Your task to perform on an android device: Go to wifi settings Image 0: 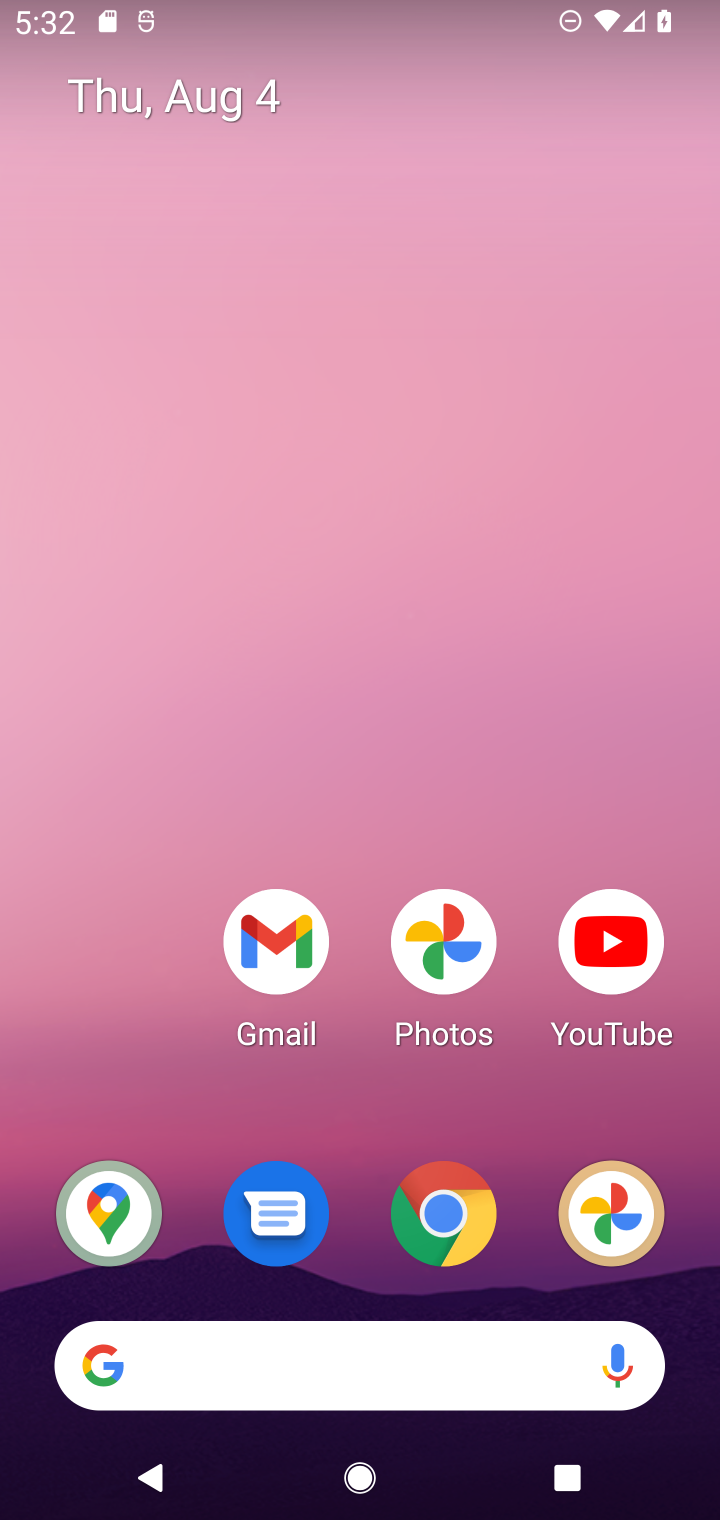
Step 0: drag from (146, 959) to (143, 241)
Your task to perform on an android device: Go to wifi settings Image 1: 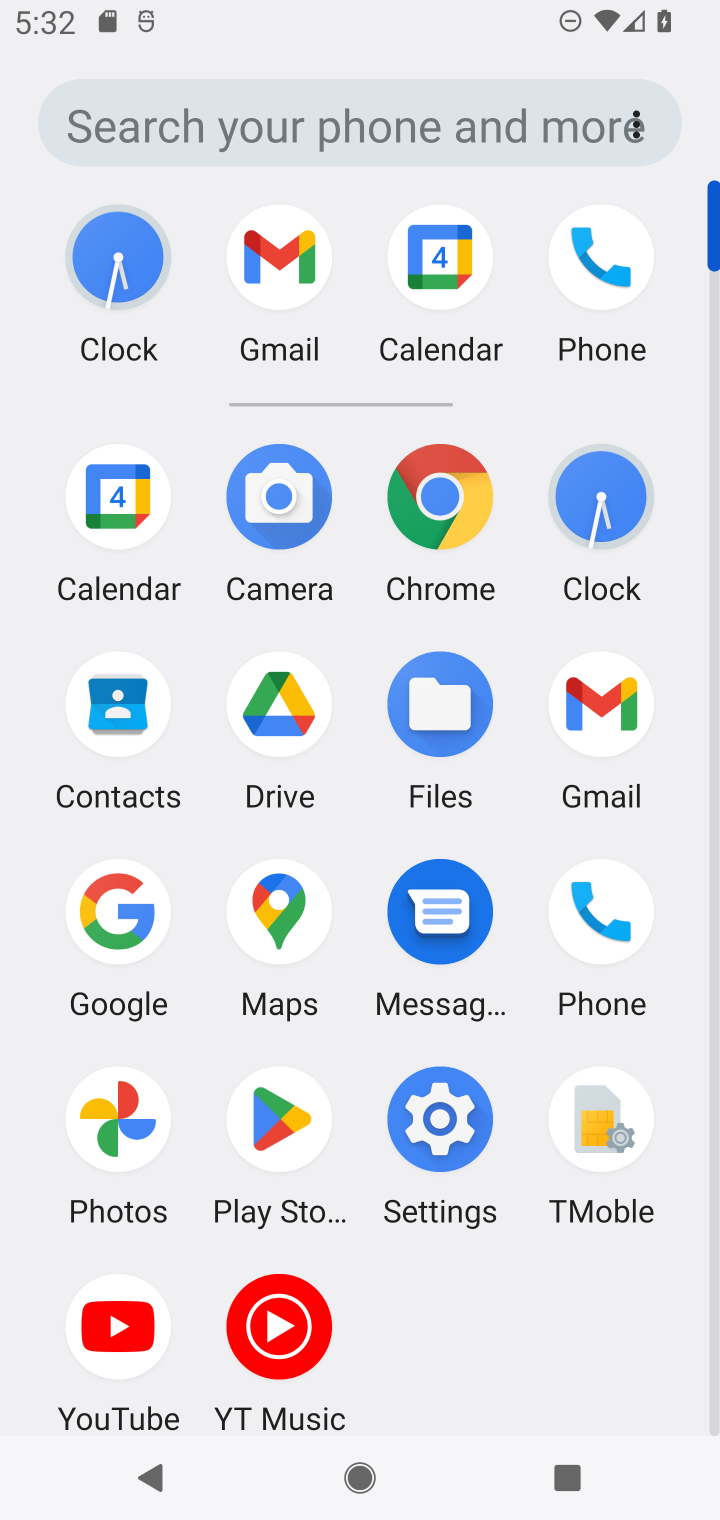
Step 1: click (433, 1132)
Your task to perform on an android device: Go to wifi settings Image 2: 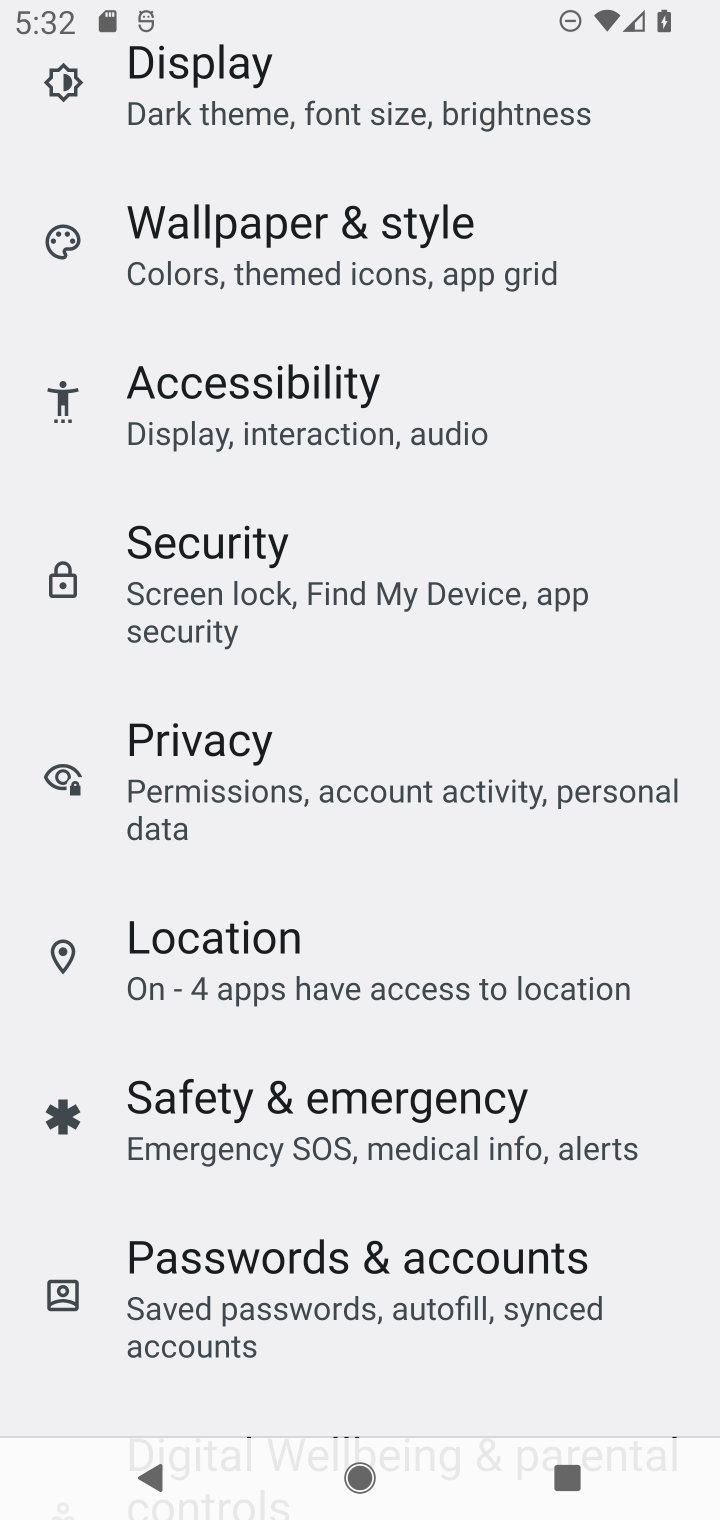
Step 2: drag from (615, 600) to (615, 900)
Your task to perform on an android device: Go to wifi settings Image 3: 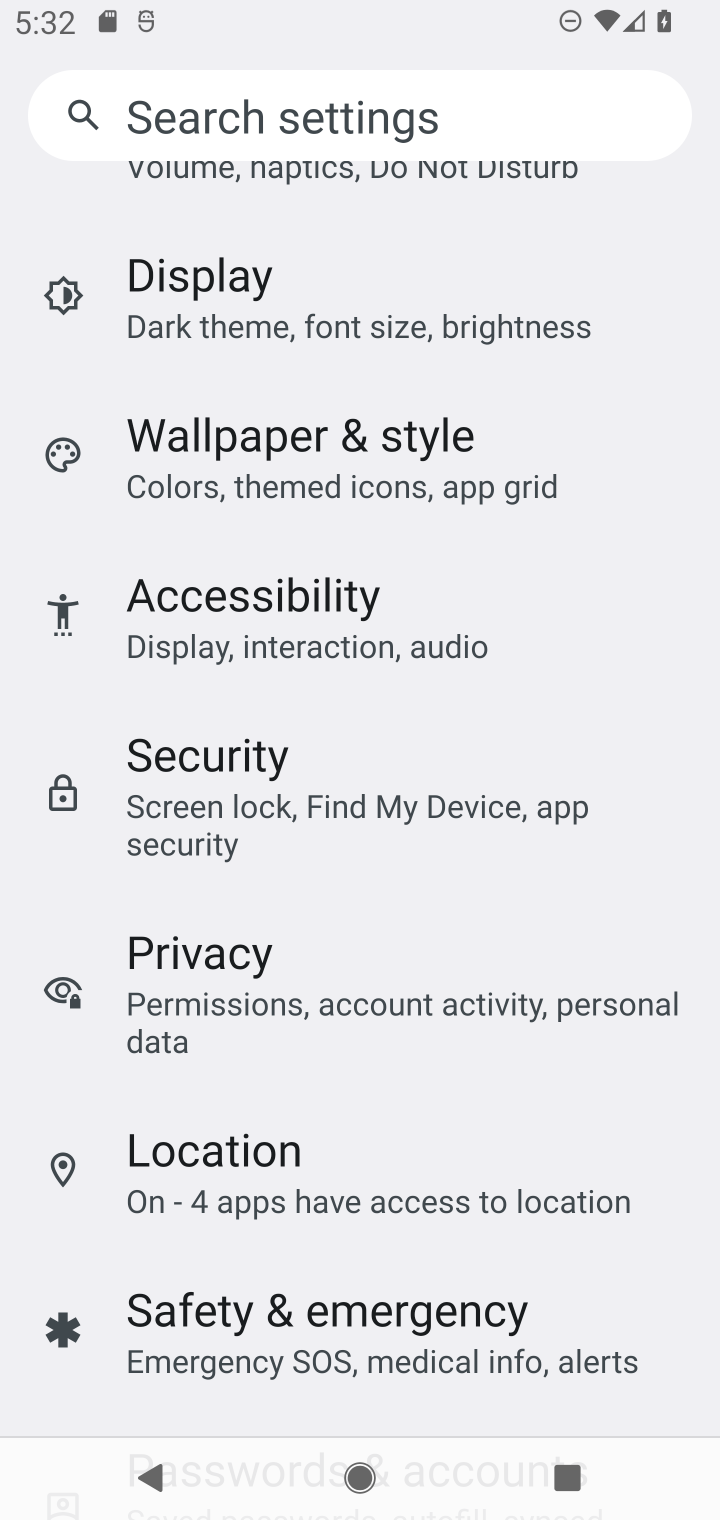
Step 3: drag from (633, 511) to (654, 866)
Your task to perform on an android device: Go to wifi settings Image 4: 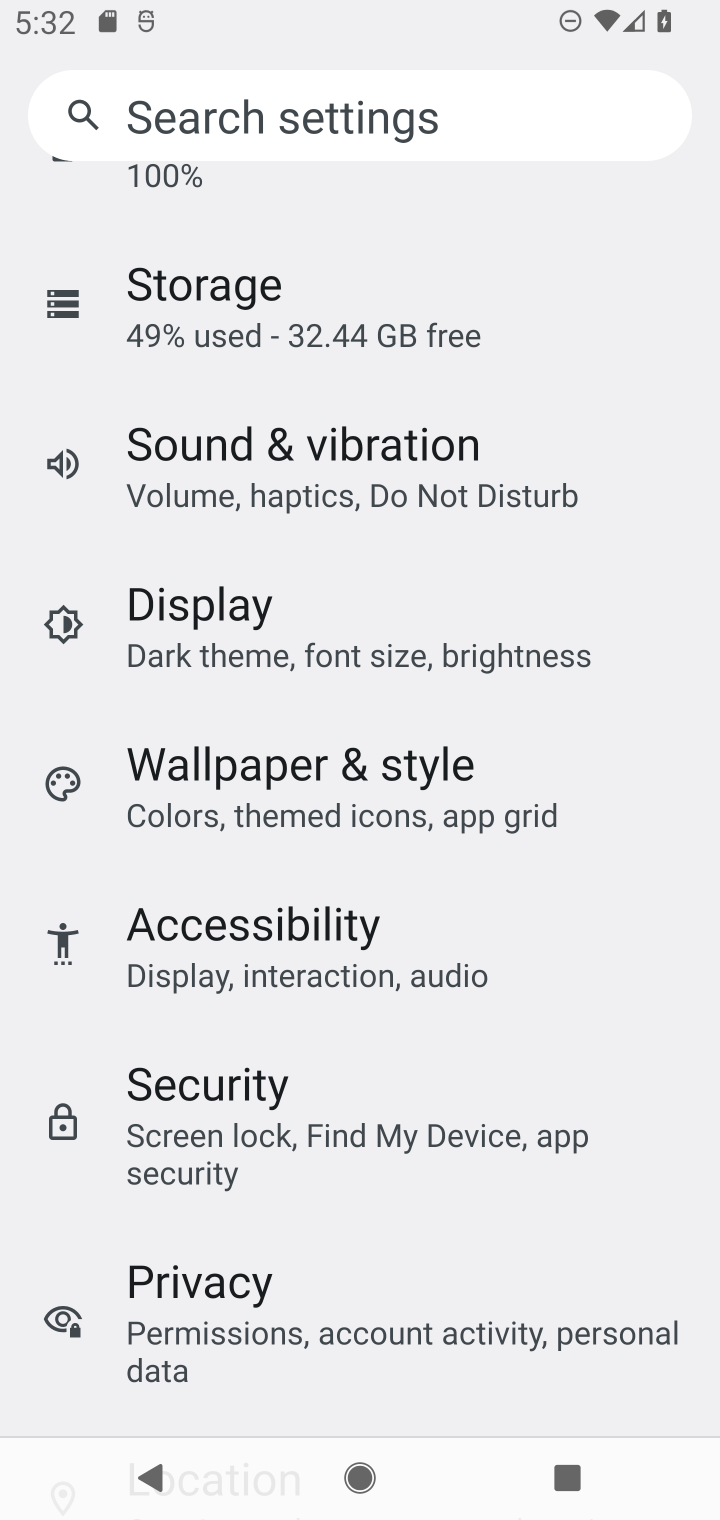
Step 4: drag from (638, 397) to (659, 841)
Your task to perform on an android device: Go to wifi settings Image 5: 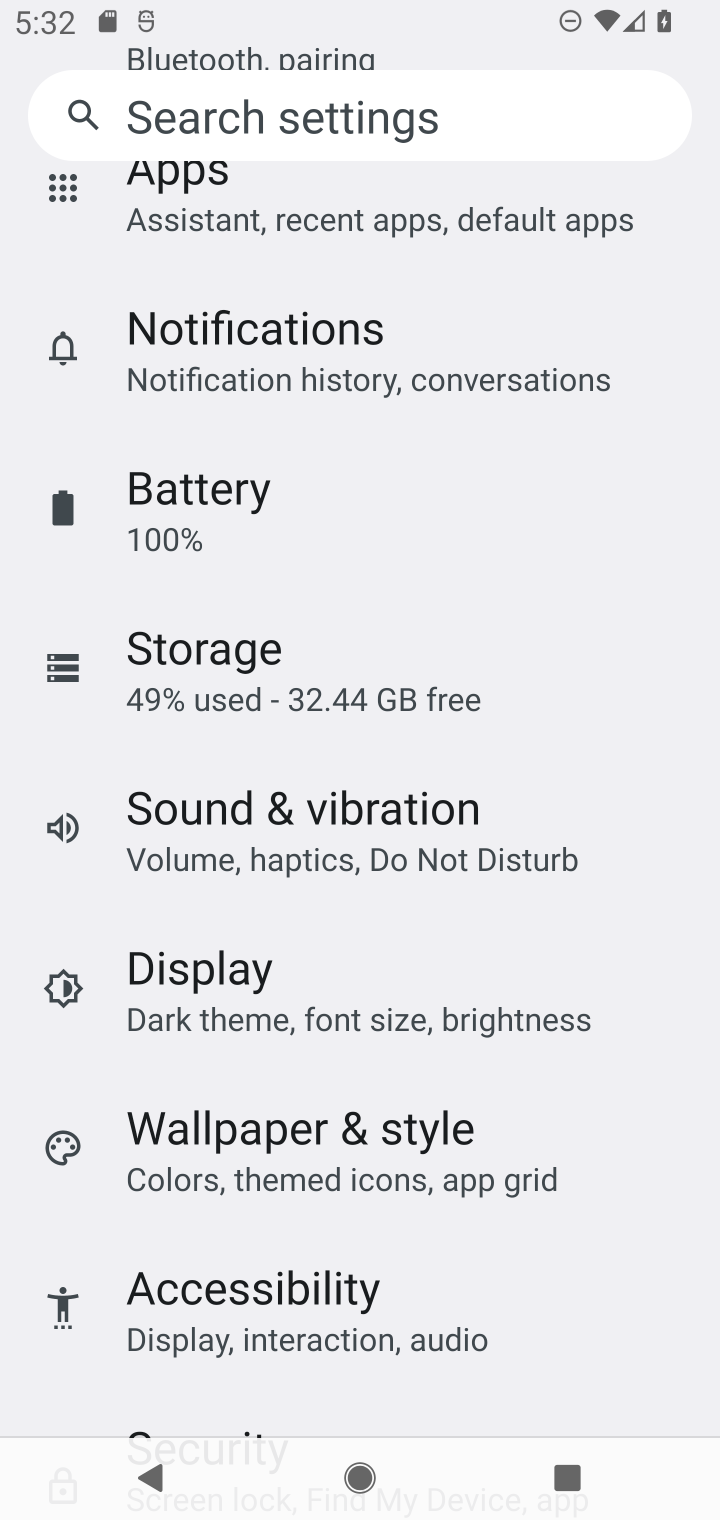
Step 5: drag from (641, 546) to (651, 858)
Your task to perform on an android device: Go to wifi settings Image 6: 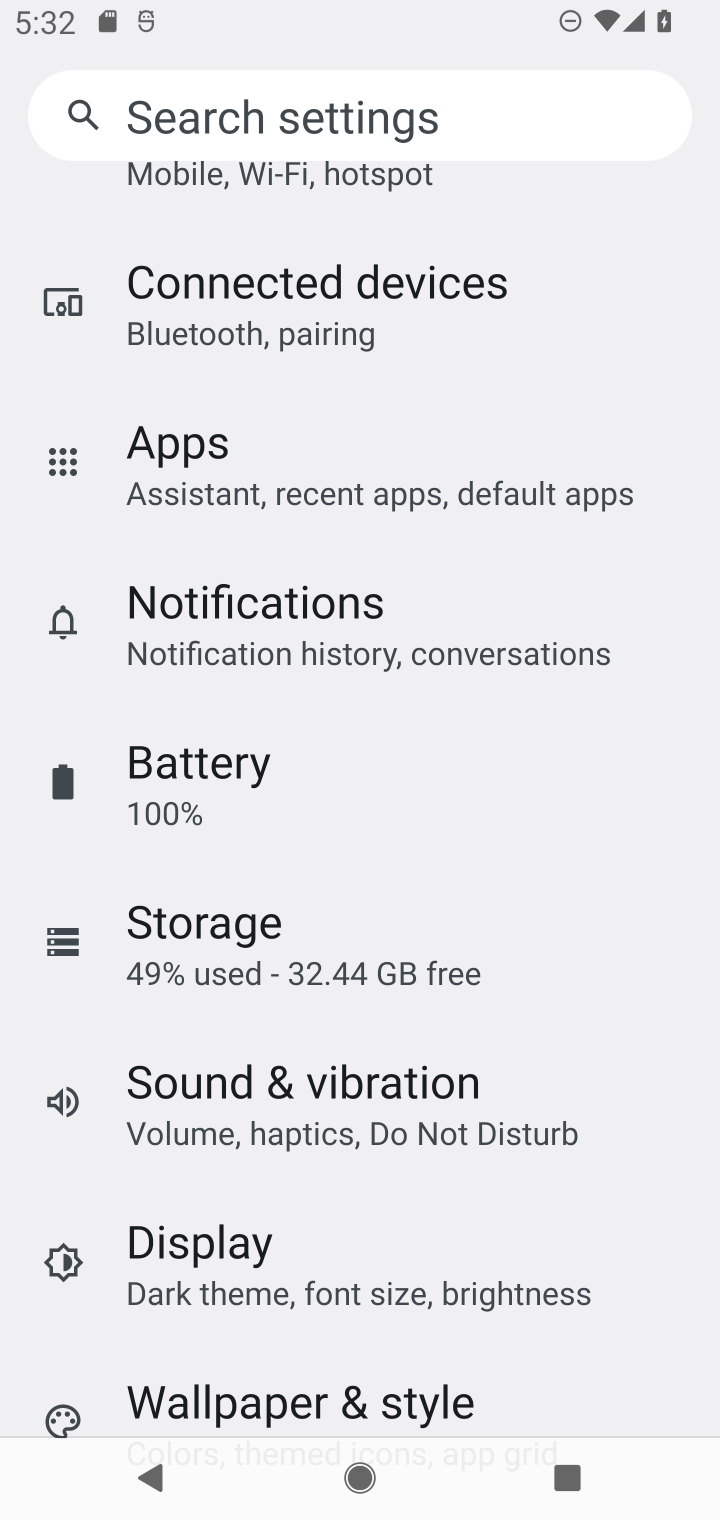
Step 6: drag from (670, 422) to (676, 779)
Your task to perform on an android device: Go to wifi settings Image 7: 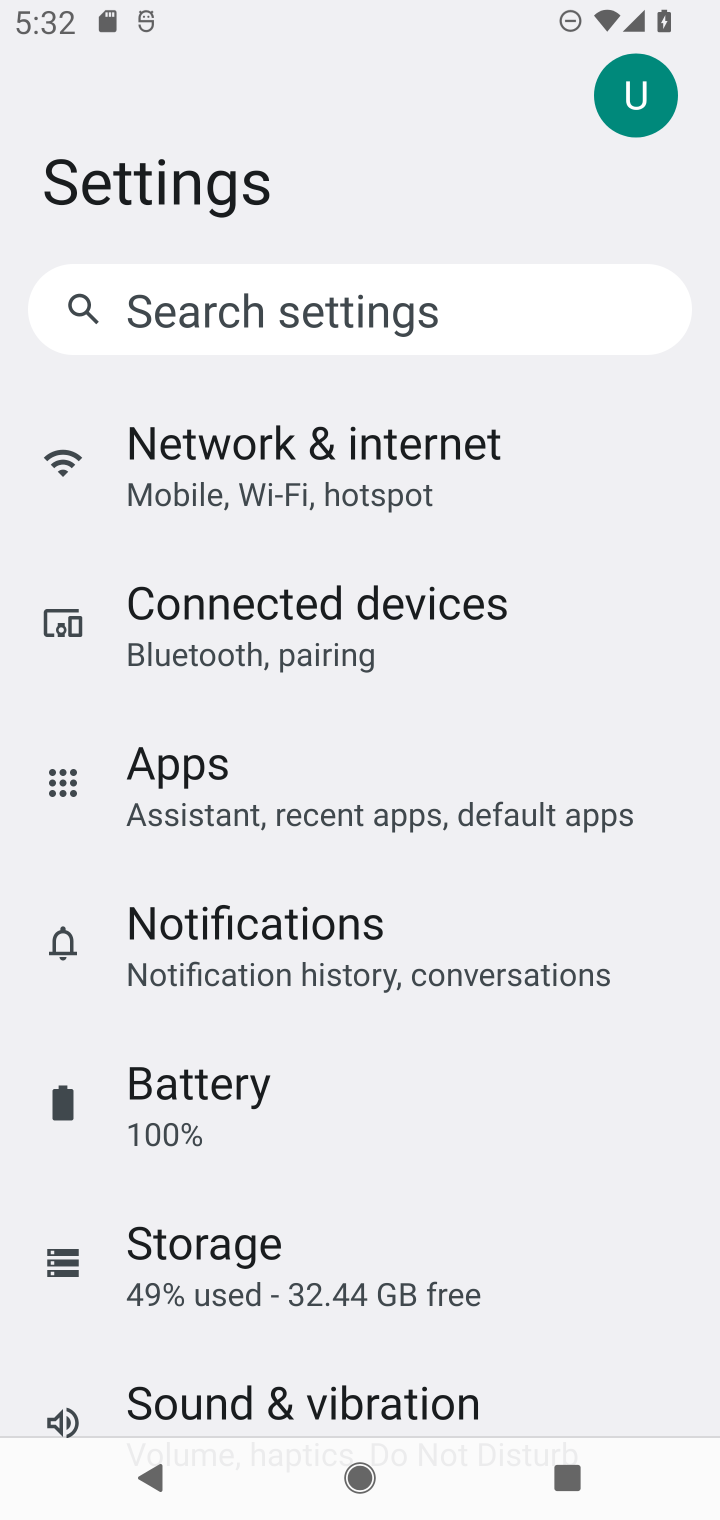
Step 7: drag from (637, 479) to (633, 1122)
Your task to perform on an android device: Go to wifi settings Image 8: 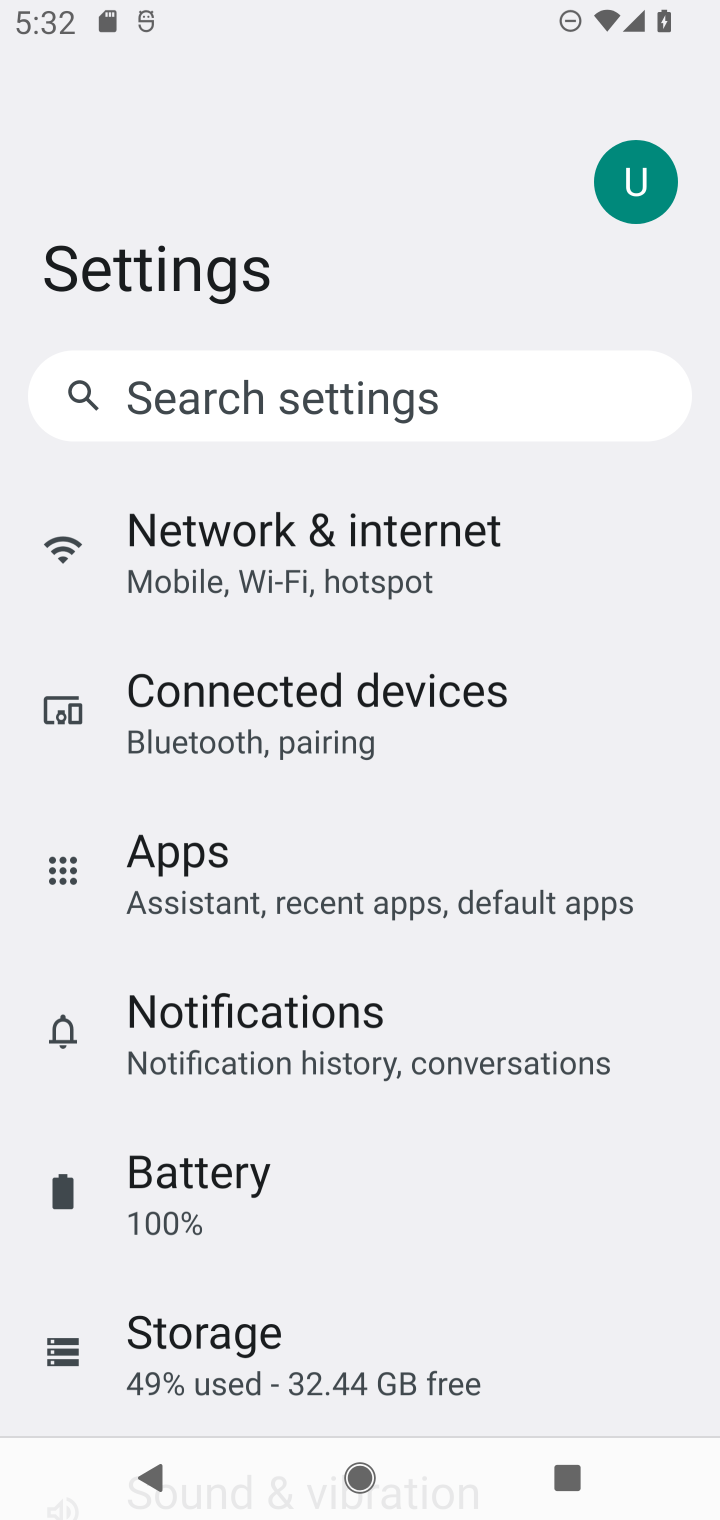
Step 8: click (424, 563)
Your task to perform on an android device: Go to wifi settings Image 9: 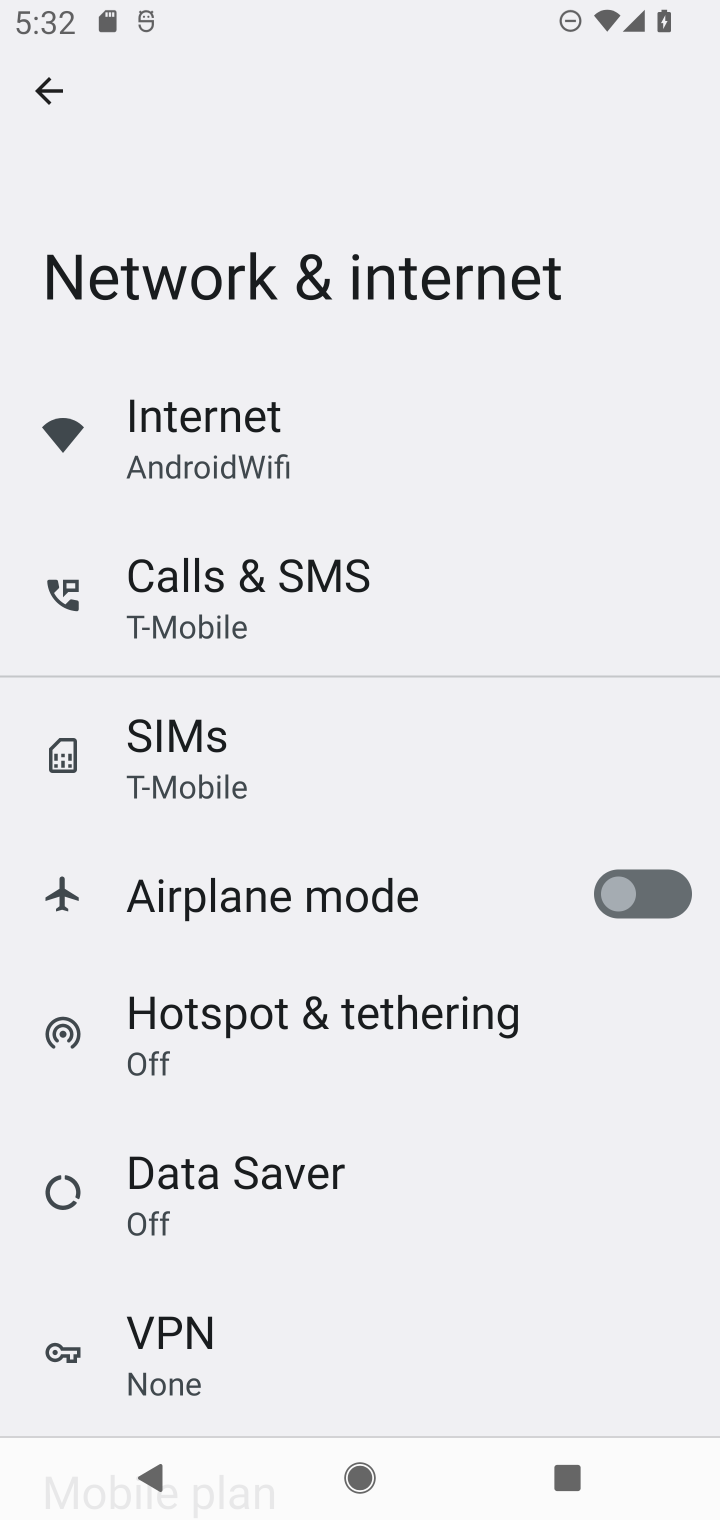
Step 9: click (237, 452)
Your task to perform on an android device: Go to wifi settings Image 10: 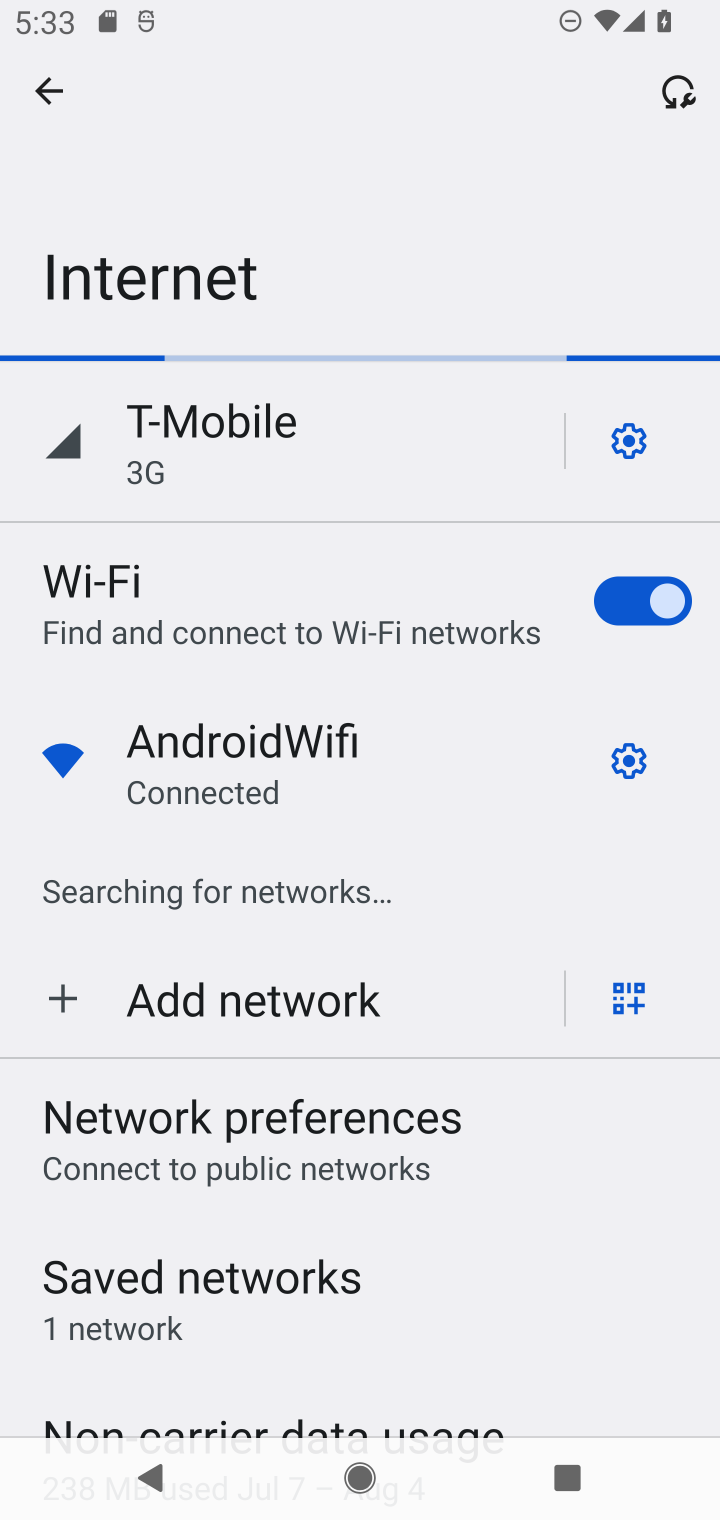
Step 10: task complete